Your task to perform on an android device: Search for sushi restaurants on Maps Image 0: 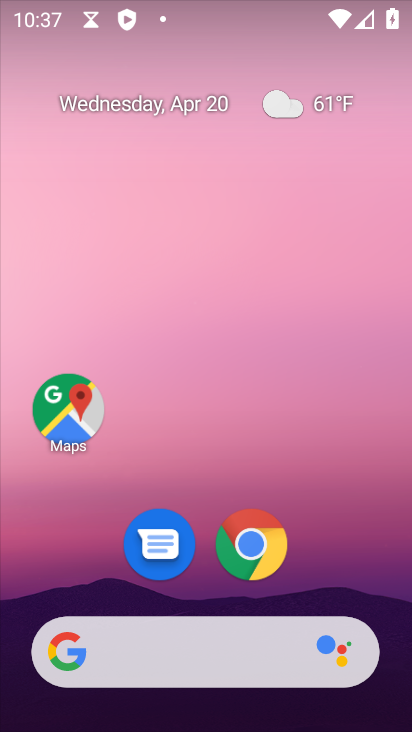
Step 0: drag from (192, 608) to (327, 142)
Your task to perform on an android device: Search for sushi restaurants on Maps Image 1: 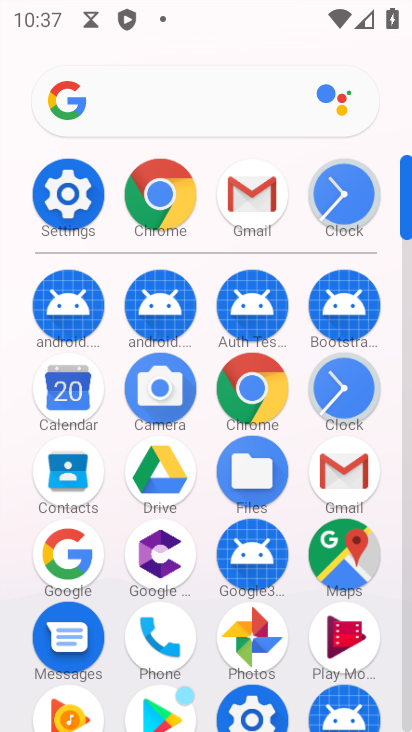
Step 1: click (345, 570)
Your task to perform on an android device: Search for sushi restaurants on Maps Image 2: 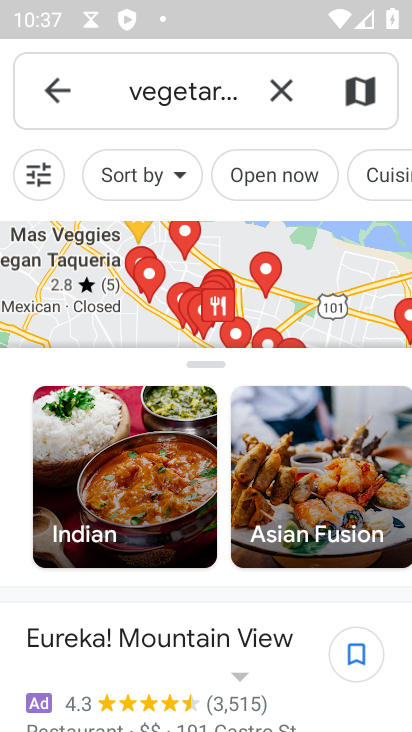
Step 2: click (280, 92)
Your task to perform on an android device: Search for sushi restaurants on Maps Image 3: 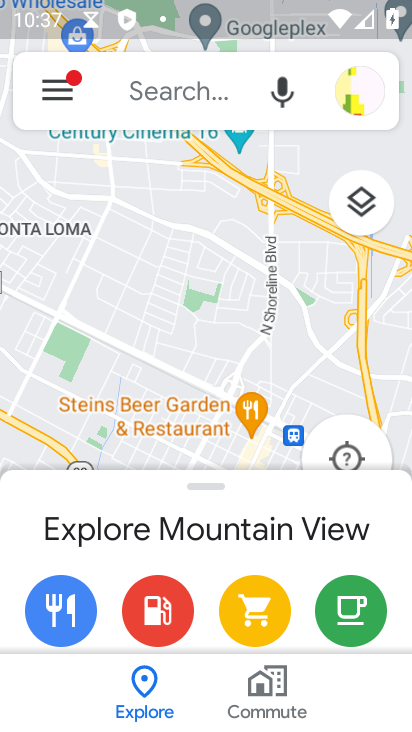
Step 3: click (149, 83)
Your task to perform on an android device: Search for sushi restaurants on Maps Image 4: 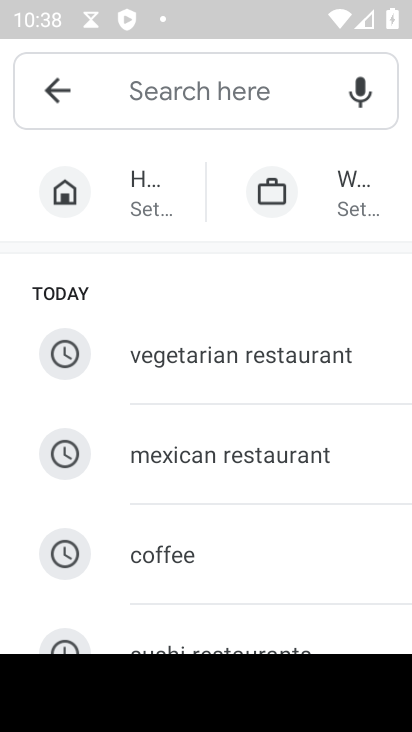
Step 4: drag from (239, 545) to (345, 275)
Your task to perform on an android device: Search for sushi restaurants on Maps Image 5: 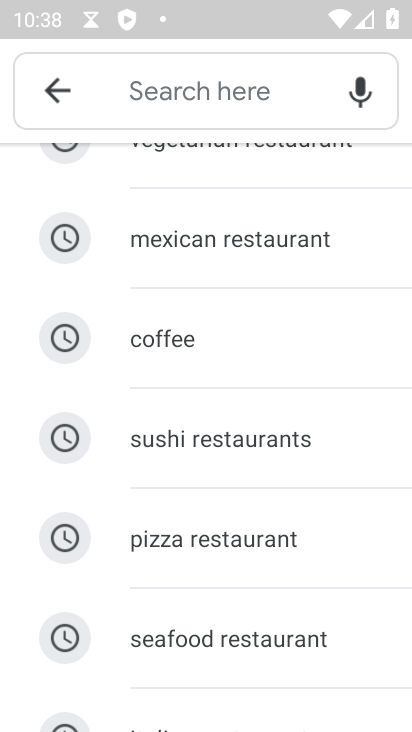
Step 5: click (251, 445)
Your task to perform on an android device: Search for sushi restaurants on Maps Image 6: 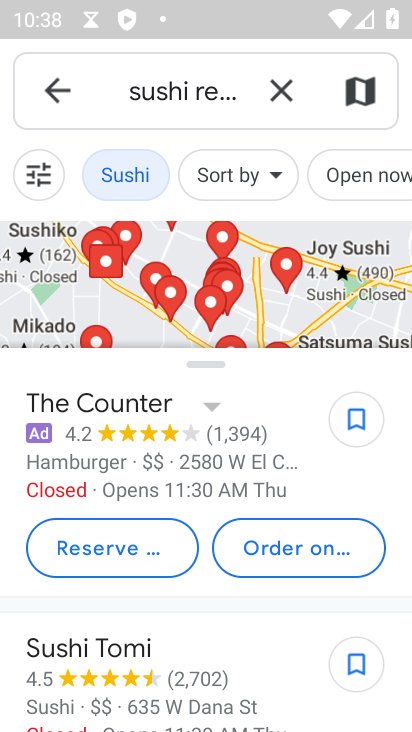
Step 6: task complete